Your task to perform on an android device: Open sound settings Image 0: 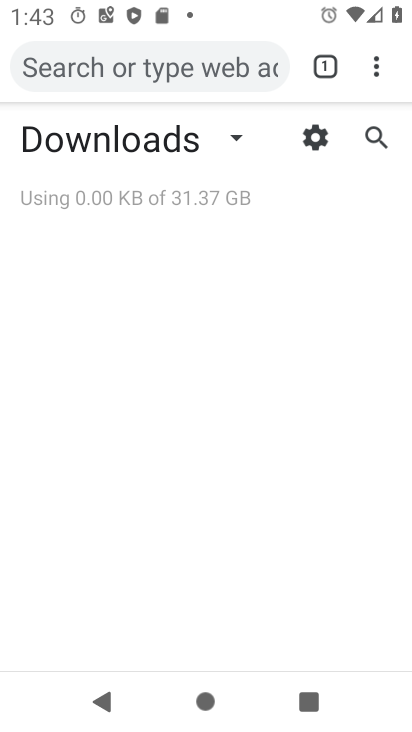
Step 0: press home button
Your task to perform on an android device: Open sound settings Image 1: 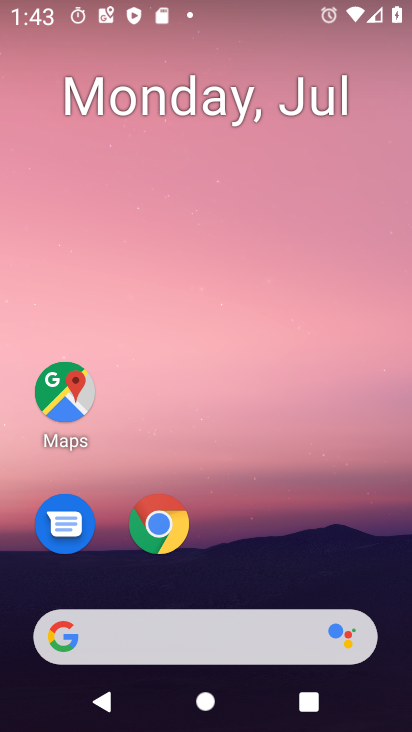
Step 1: click (288, 25)
Your task to perform on an android device: Open sound settings Image 2: 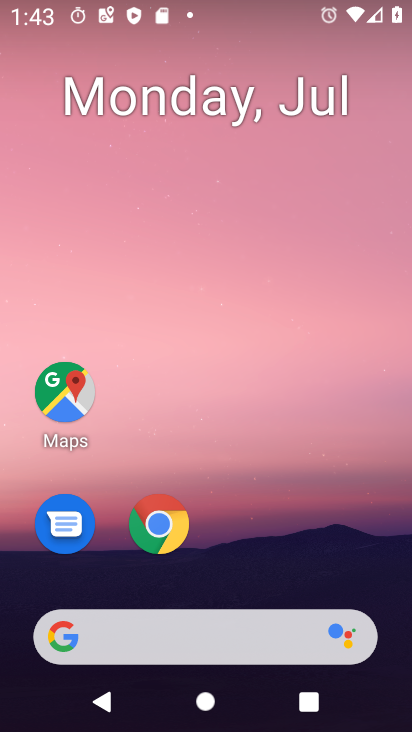
Step 2: drag from (309, 510) to (226, 14)
Your task to perform on an android device: Open sound settings Image 3: 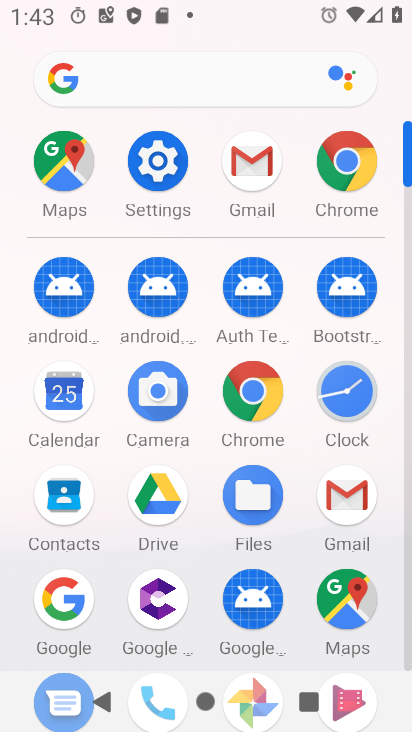
Step 3: click (161, 155)
Your task to perform on an android device: Open sound settings Image 4: 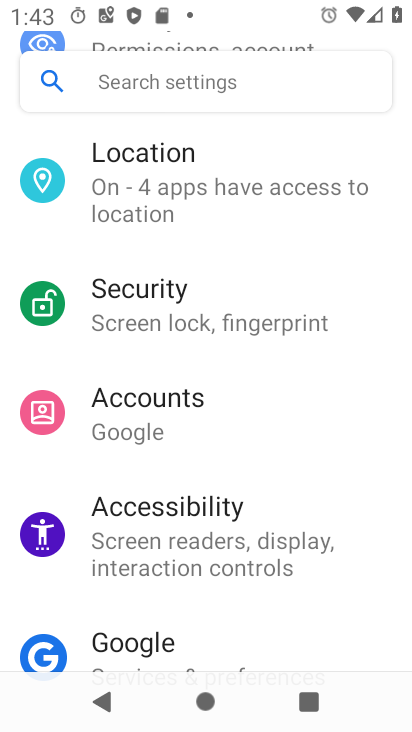
Step 4: drag from (217, 131) to (243, 550)
Your task to perform on an android device: Open sound settings Image 5: 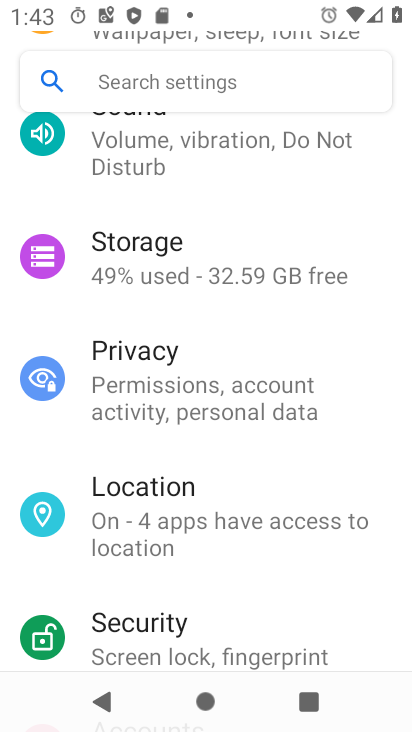
Step 5: click (132, 137)
Your task to perform on an android device: Open sound settings Image 6: 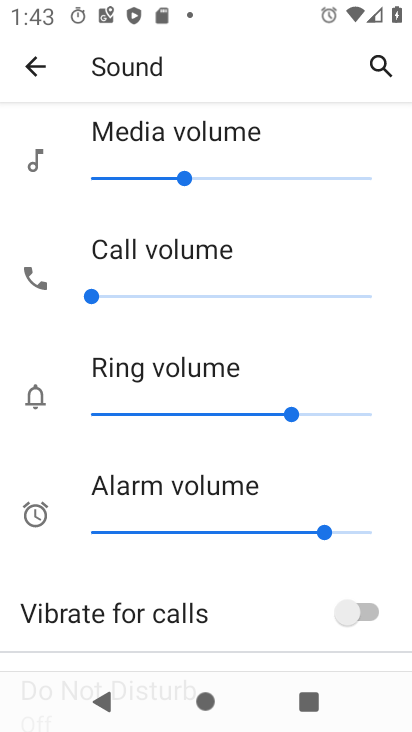
Step 6: task complete